Your task to perform on an android device: change the upload size in google photos Image 0: 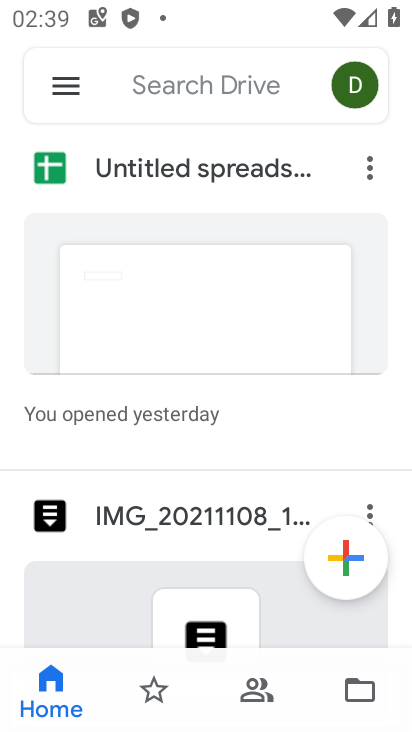
Step 0: press home button
Your task to perform on an android device: change the upload size in google photos Image 1: 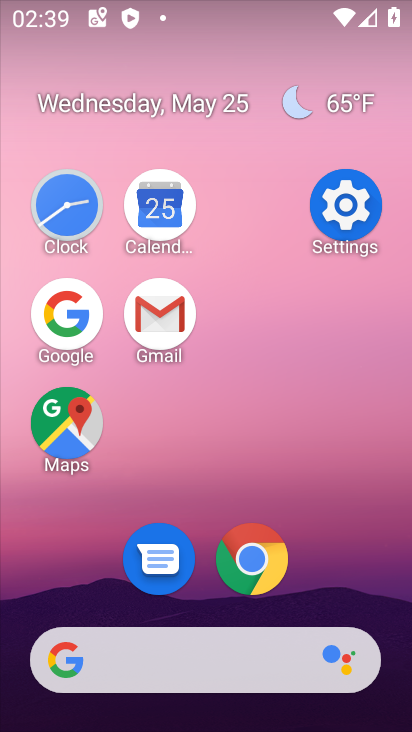
Step 1: drag from (352, 569) to (318, 182)
Your task to perform on an android device: change the upload size in google photos Image 2: 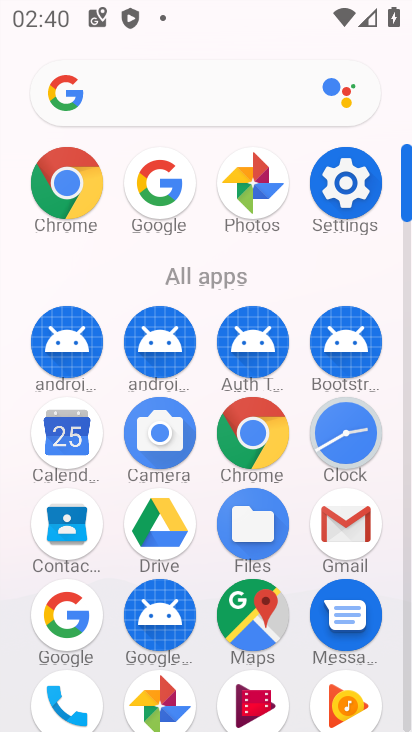
Step 2: click (153, 690)
Your task to perform on an android device: change the upload size in google photos Image 3: 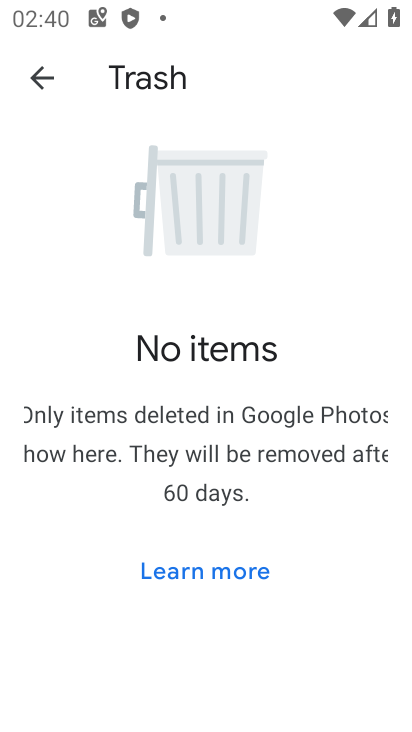
Step 3: click (46, 90)
Your task to perform on an android device: change the upload size in google photos Image 4: 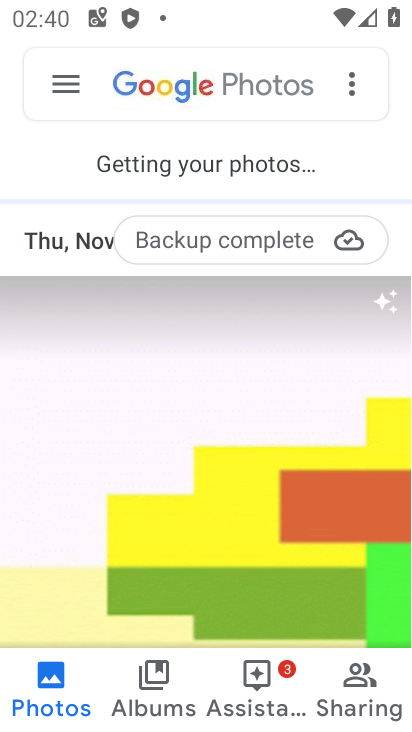
Step 4: click (74, 85)
Your task to perform on an android device: change the upload size in google photos Image 5: 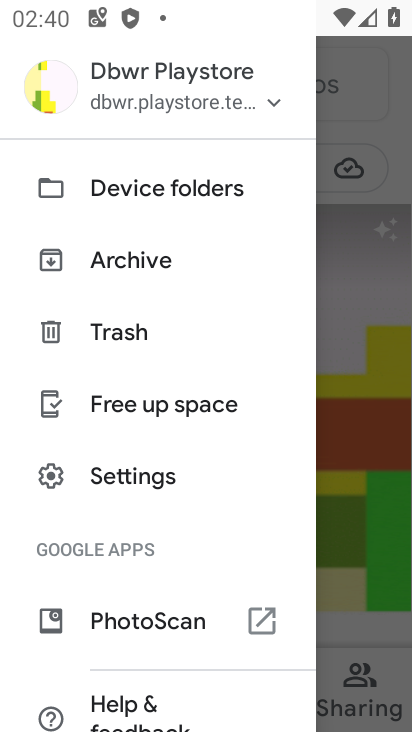
Step 5: click (154, 473)
Your task to perform on an android device: change the upload size in google photos Image 6: 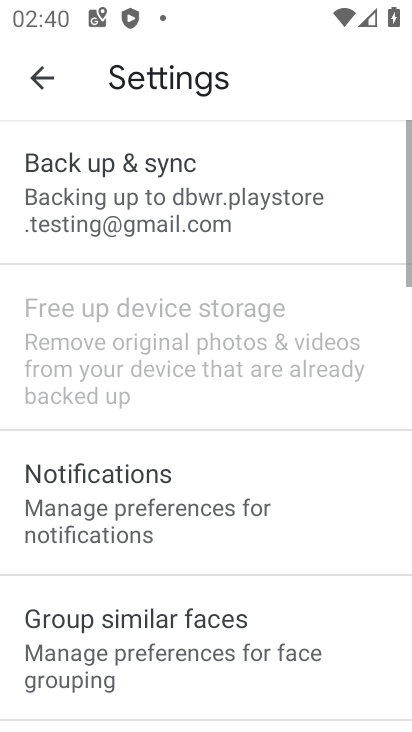
Step 6: click (149, 180)
Your task to perform on an android device: change the upload size in google photos Image 7: 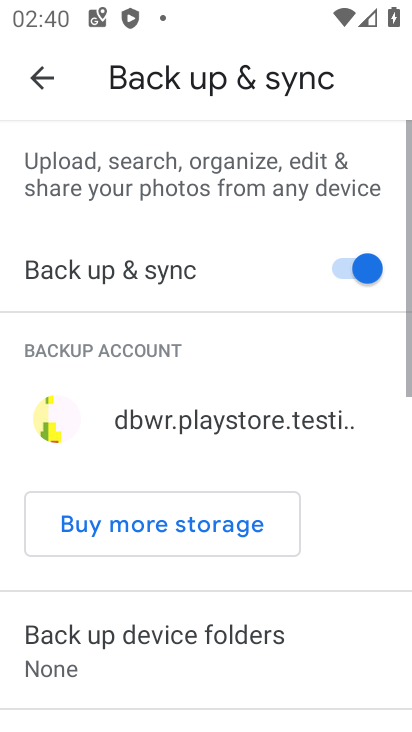
Step 7: drag from (167, 515) to (162, 188)
Your task to perform on an android device: change the upload size in google photos Image 8: 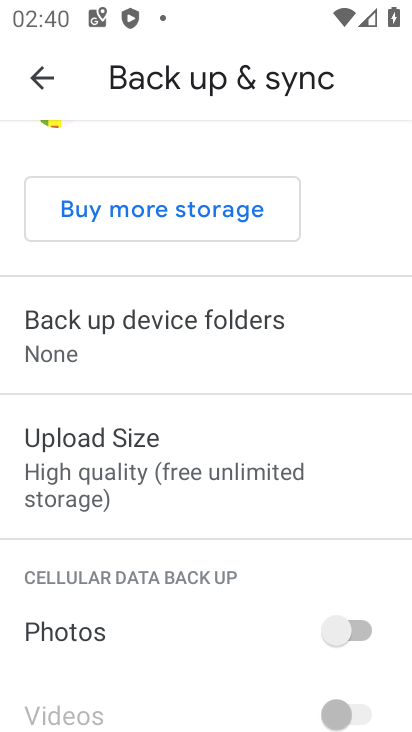
Step 8: click (148, 440)
Your task to perform on an android device: change the upload size in google photos Image 9: 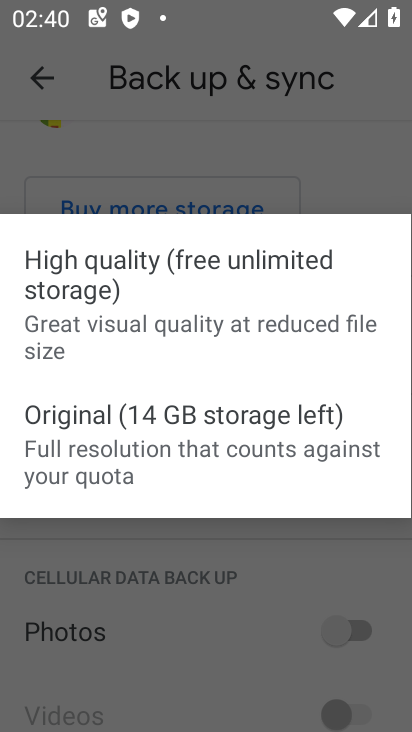
Step 9: click (216, 434)
Your task to perform on an android device: change the upload size in google photos Image 10: 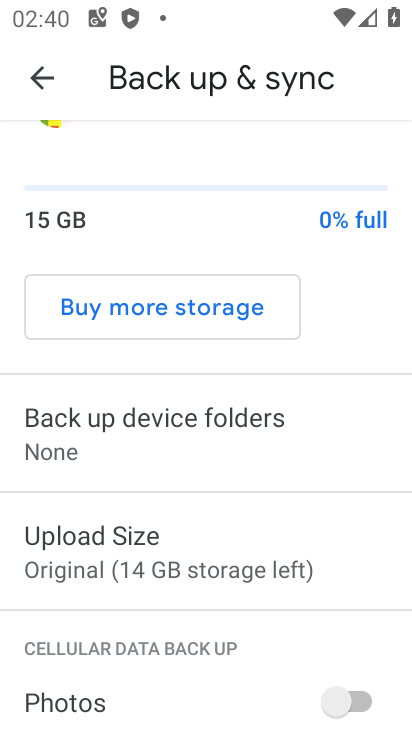
Step 10: task complete